Your task to perform on an android device: Go to accessibility settings Image 0: 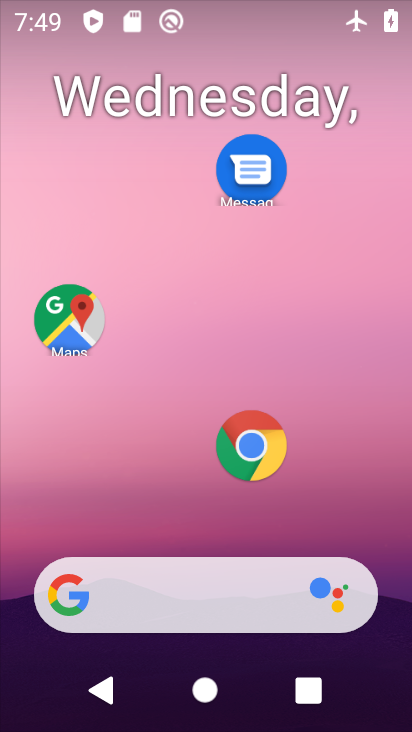
Step 0: drag from (238, 699) to (215, 475)
Your task to perform on an android device: Go to accessibility settings Image 1: 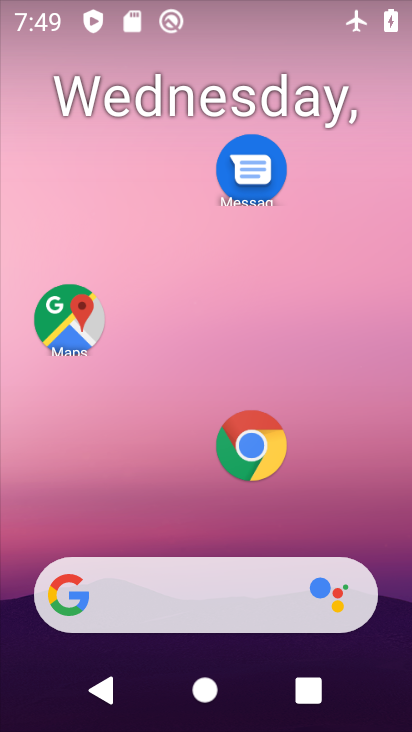
Step 1: drag from (290, 622) to (238, 278)
Your task to perform on an android device: Go to accessibility settings Image 2: 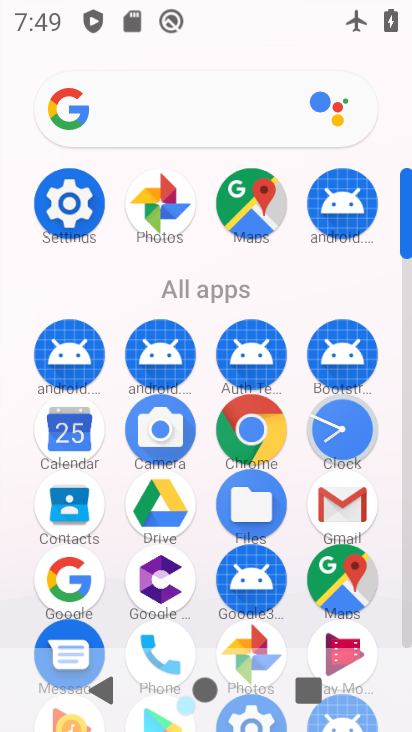
Step 2: drag from (295, 542) to (292, 359)
Your task to perform on an android device: Go to accessibility settings Image 3: 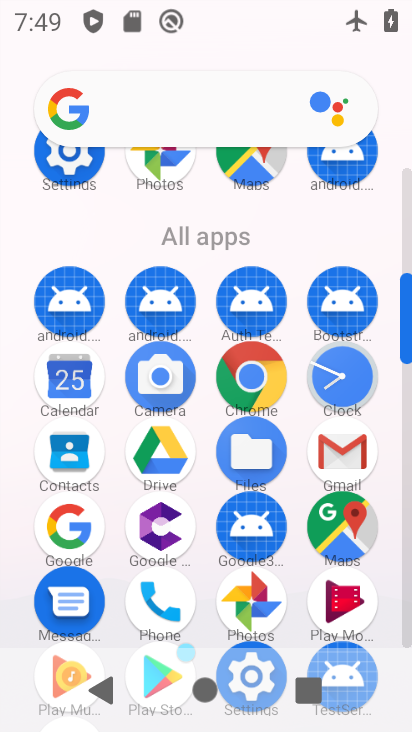
Step 3: drag from (294, 526) to (322, 206)
Your task to perform on an android device: Go to accessibility settings Image 4: 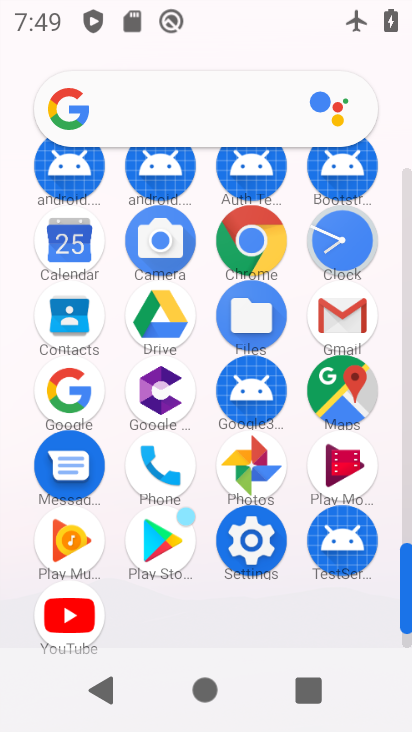
Step 4: click (246, 560)
Your task to perform on an android device: Go to accessibility settings Image 5: 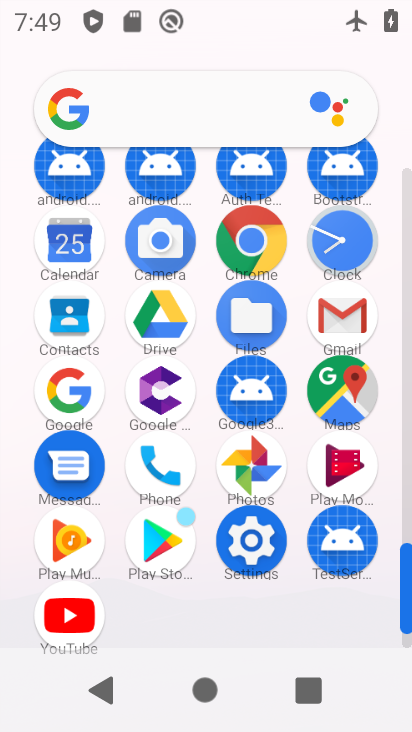
Step 5: click (246, 560)
Your task to perform on an android device: Go to accessibility settings Image 6: 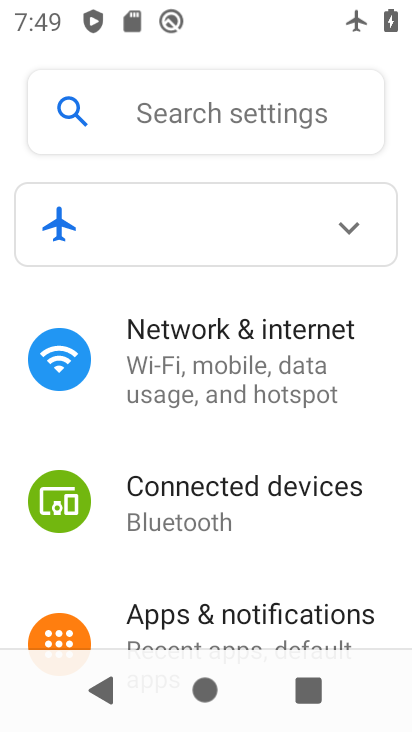
Step 6: click (251, 550)
Your task to perform on an android device: Go to accessibility settings Image 7: 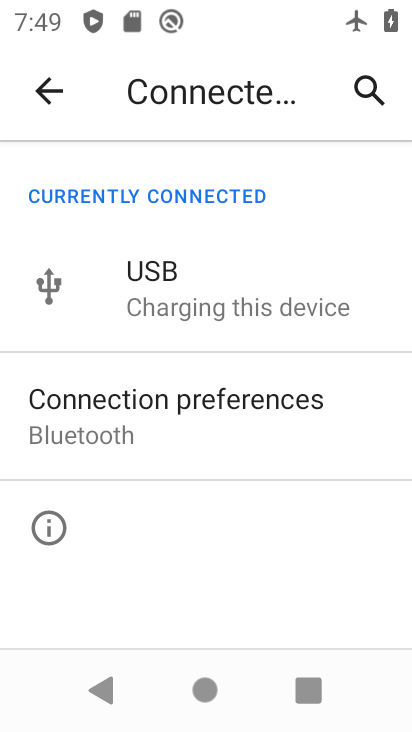
Step 7: click (43, 100)
Your task to perform on an android device: Go to accessibility settings Image 8: 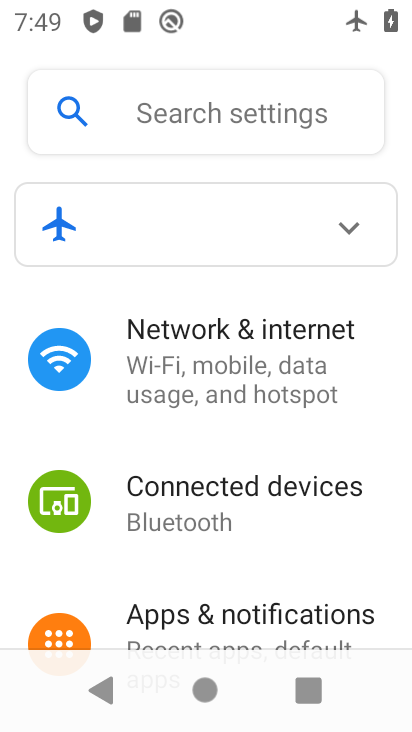
Step 8: drag from (209, 636) to (213, 324)
Your task to perform on an android device: Go to accessibility settings Image 9: 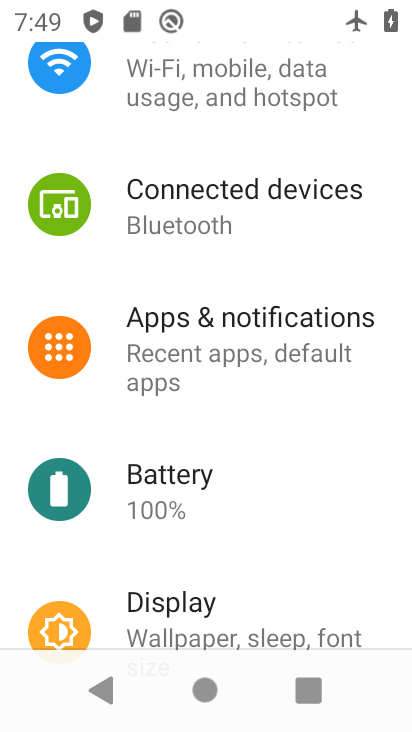
Step 9: drag from (296, 459) to (314, 170)
Your task to perform on an android device: Go to accessibility settings Image 10: 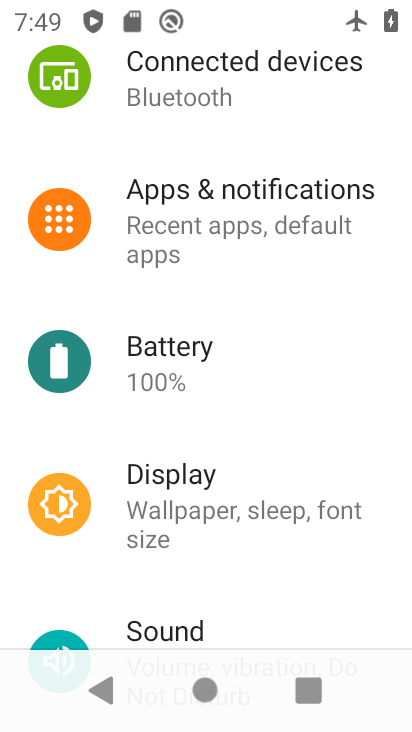
Step 10: drag from (262, 531) to (259, 152)
Your task to perform on an android device: Go to accessibility settings Image 11: 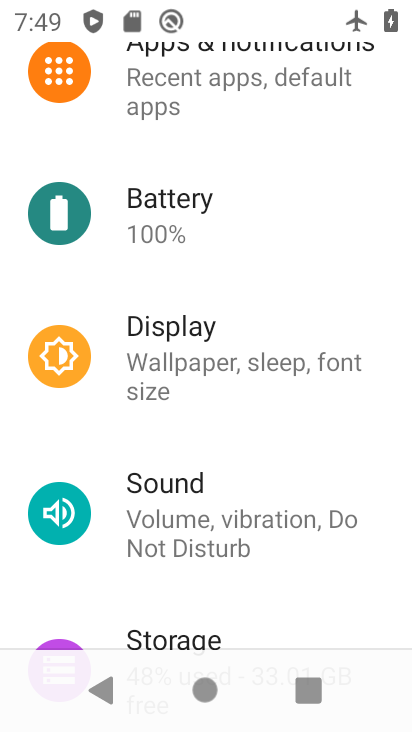
Step 11: drag from (269, 480) to (234, 184)
Your task to perform on an android device: Go to accessibility settings Image 12: 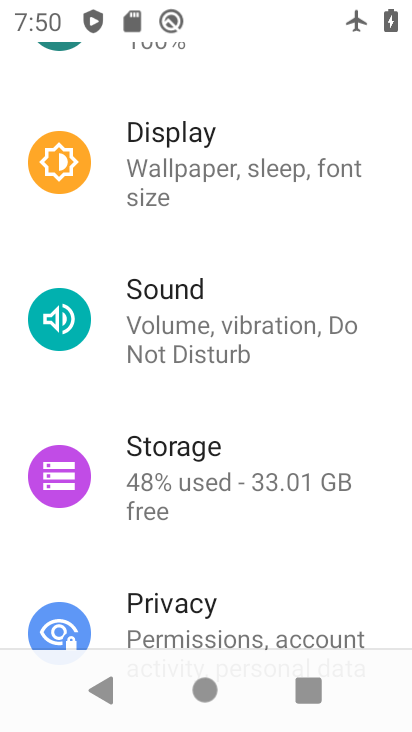
Step 12: drag from (233, 561) to (232, 202)
Your task to perform on an android device: Go to accessibility settings Image 13: 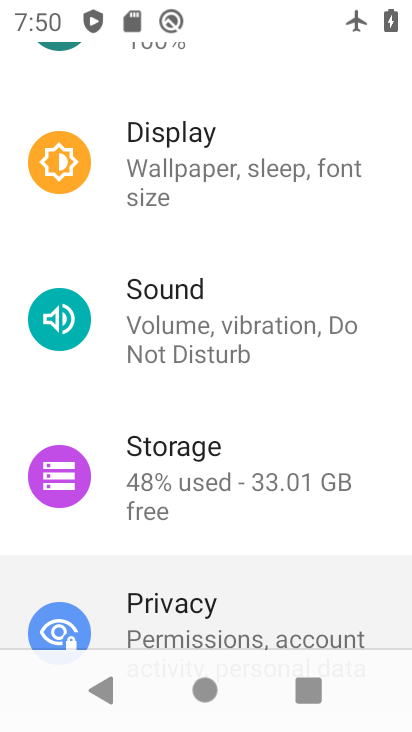
Step 13: drag from (235, 536) to (226, 264)
Your task to perform on an android device: Go to accessibility settings Image 14: 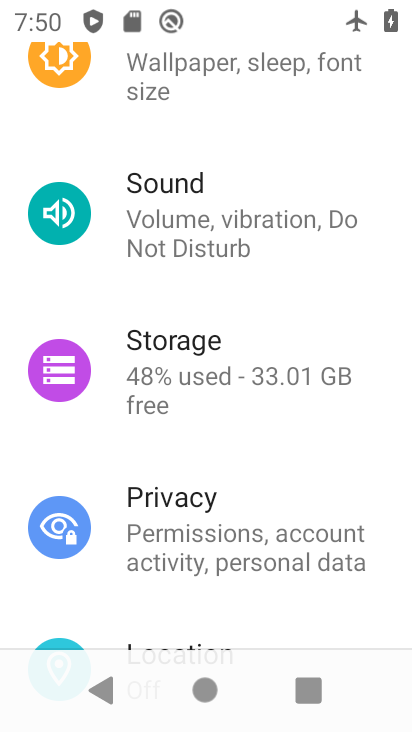
Step 14: drag from (245, 535) to (249, 241)
Your task to perform on an android device: Go to accessibility settings Image 15: 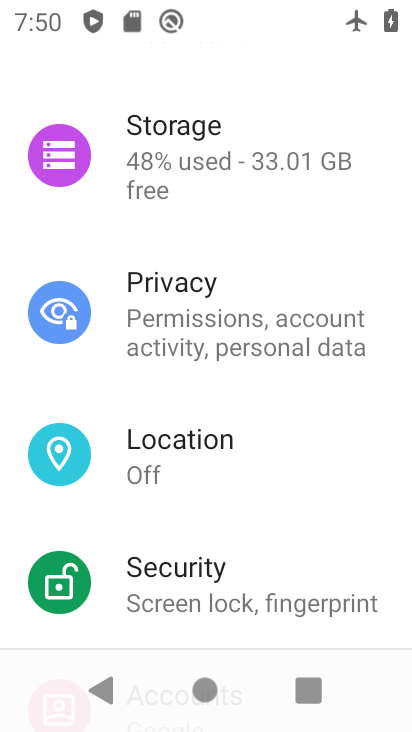
Step 15: drag from (228, 482) to (202, 138)
Your task to perform on an android device: Go to accessibility settings Image 16: 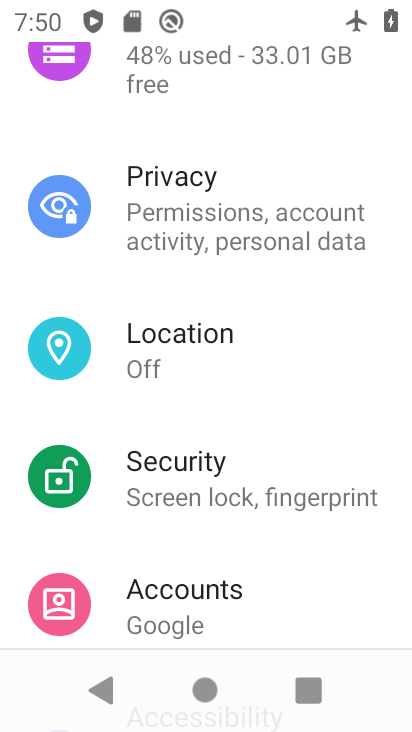
Step 16: drag from (257, 454) to (238, 66)
Your task to perform on an android device: Go to accessibility settings Image 17: 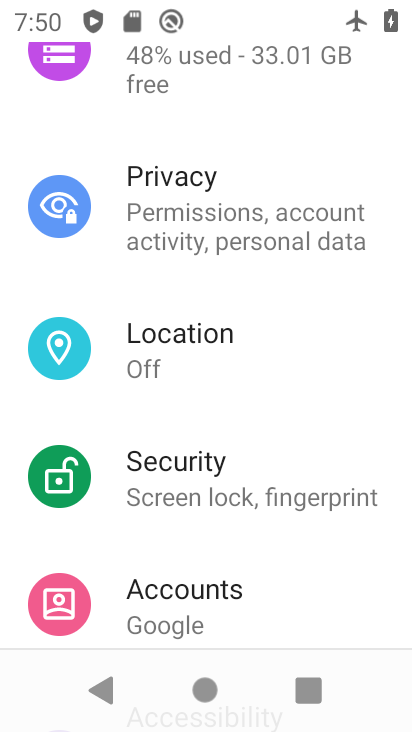
Step 17: drag from (226, 440) to (222, 66)
Your task to perform on an android device: Go to accessibility settings Image 18: 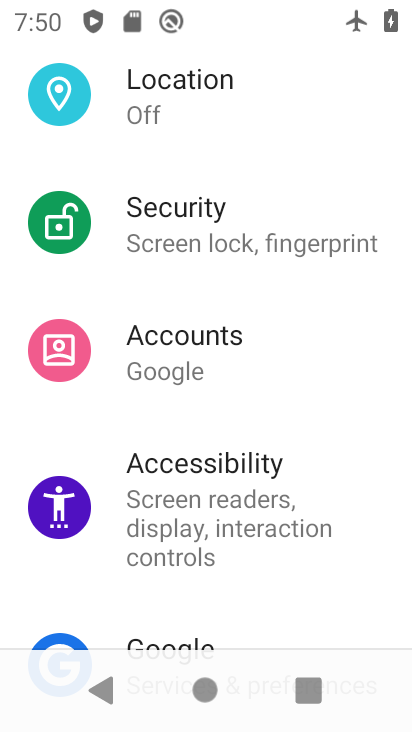
Step 18: drag from (160, 449) to (117, 71)
Your task to perform on an android device: Go to accessibility settings Image 19: 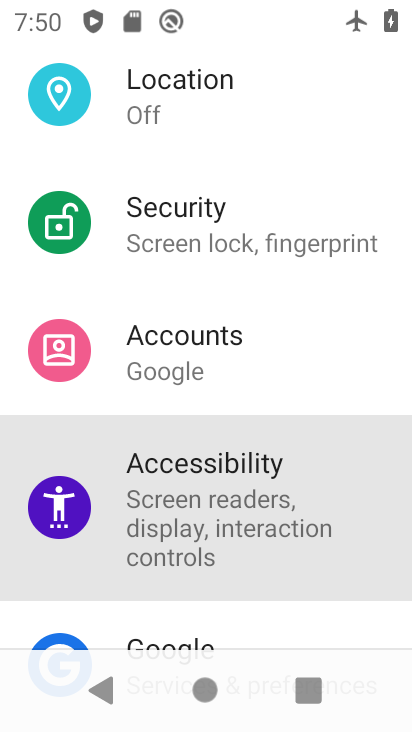
Step 19: drag from (238, 545) to (220, 107)
Your task to perform on an android device: Go to accessibility settings Image 20: 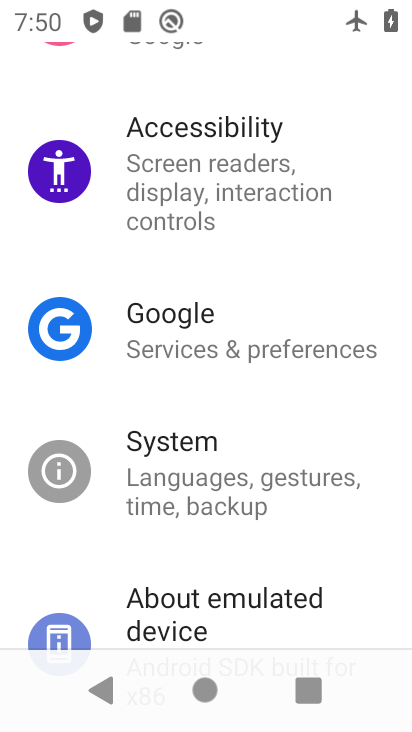
Step 20: click (193, 206)
Your task to perform on an android device: Go to accessibility settings Image 21: 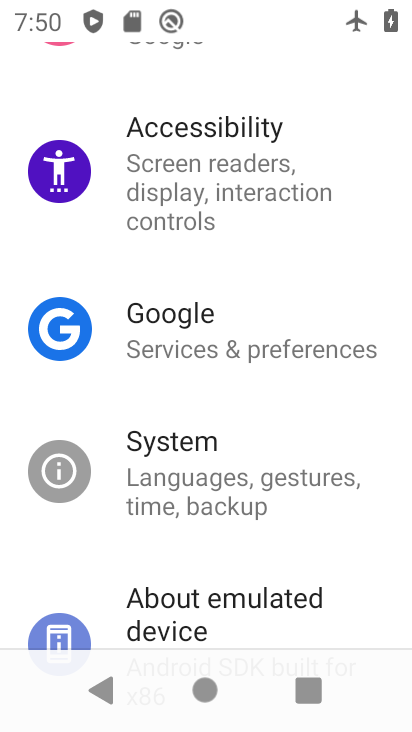
Step 21: click (193, 204)
Your task to perform on an android device: Go to accessibility settings Image 22: 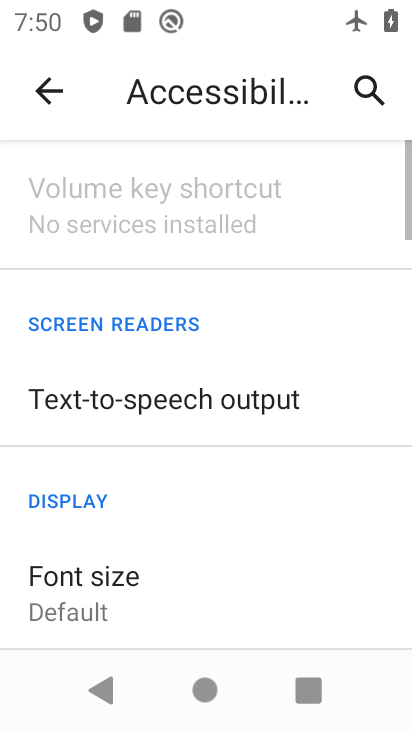
Step 22: click (192, 200)
Your task to perform on an android device: Go to accessibility settings Image 23: 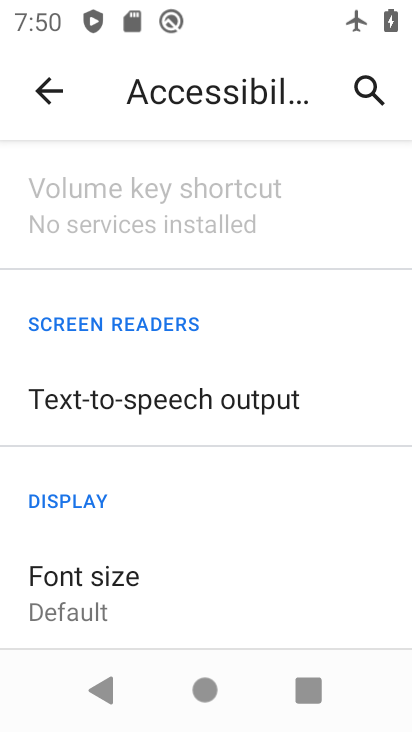
Step 23: task complete